Your task to perform on an android device: Go to eBay Image 0: 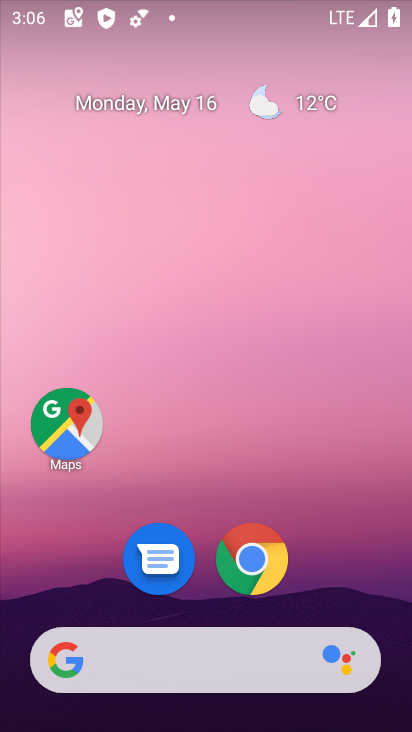
Step 0: click (240, 566)
Your task to perform on an android device: Go to eBay Image 1: 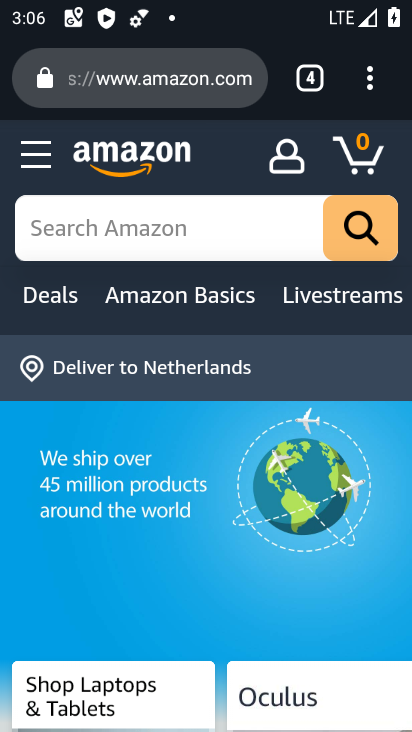
Step 1: click (305, 71)
Your task to perform on an android device: Go to eBay Image 2: 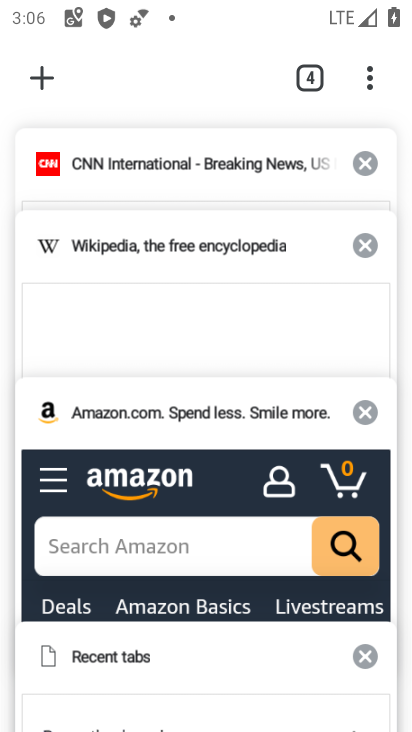
Step 2: click (46, 77)
Your task to perform on an android device: Go to eBay Image 3: 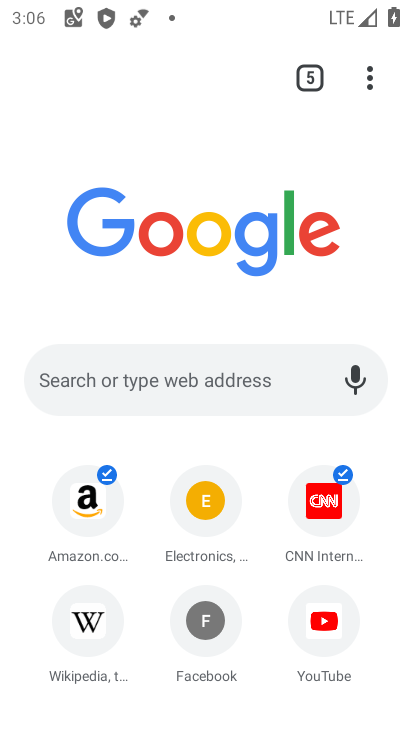
Step 3: click (116, 379)
Your task to perform on an android device: Go to eBay Image 4: 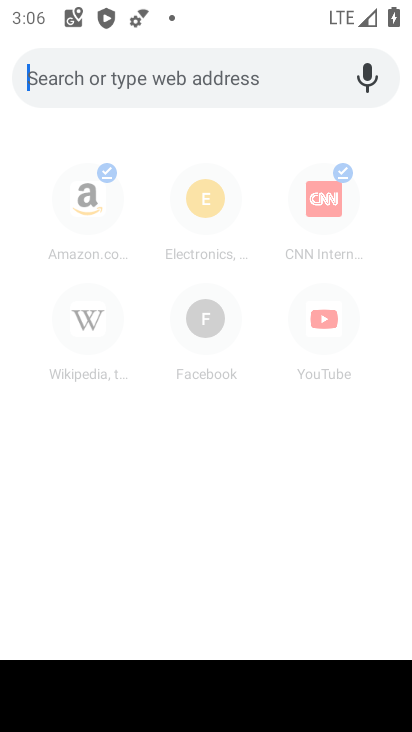
Step 4: click (83, 73)
Your task to perform on an android device: Go to eBay Image 5: 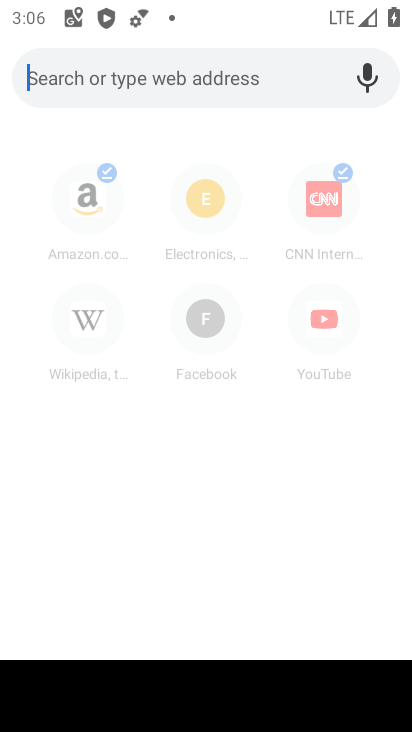
Step 5: type "ebay"
Your task to perform on an android device: Go to eBay Image 6: 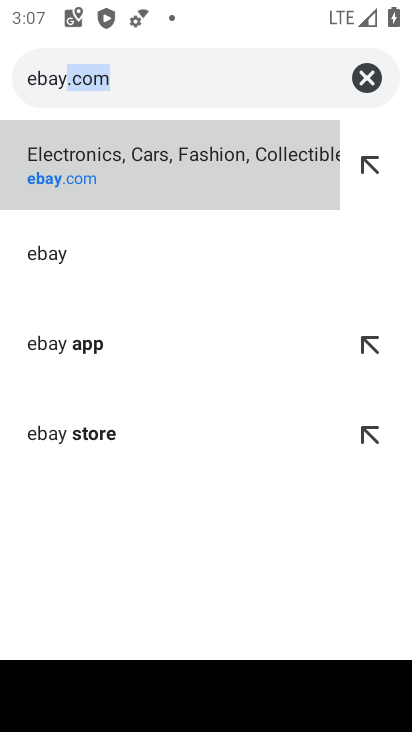
Step 6: click (177, 191)
Your task to perform on an android device: Go to eBay Image 7: 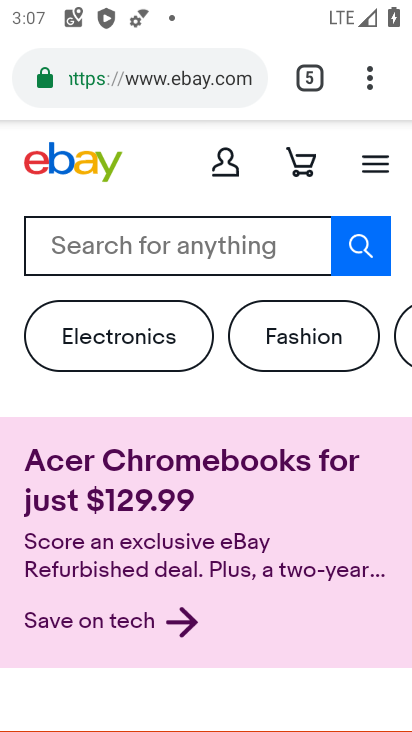
Step 7: task complete